Your task to perform on an android device: turn on improve location accuracy Image 0: 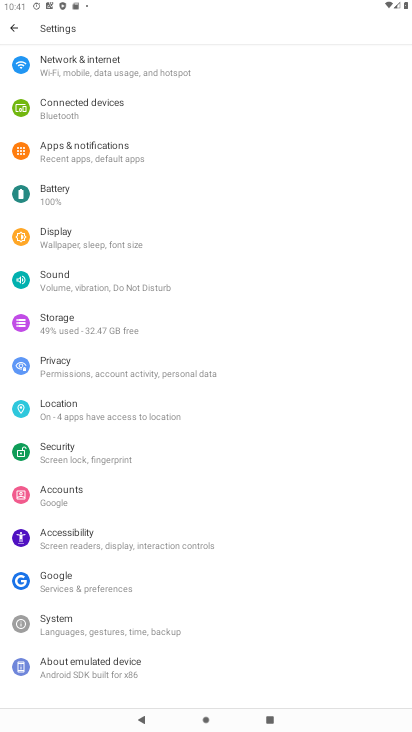
Step 0: click (88, 406)
Your task to perform on an android device: turn on improve location accuracy Image 1: 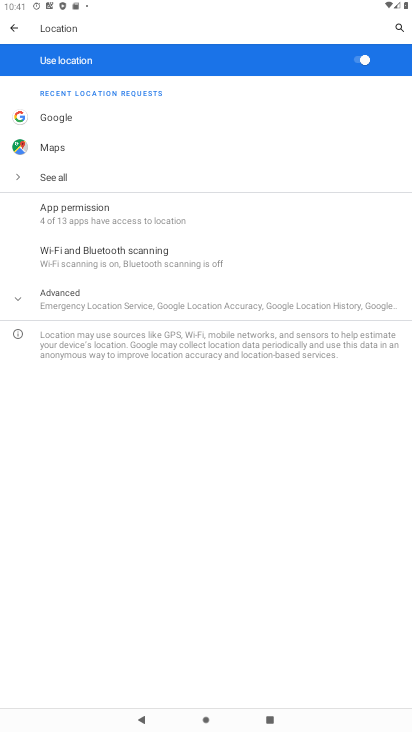
Step 1: click (133, 302)
Your task to perform on an android device: turn on improve location accuracy Image 2: 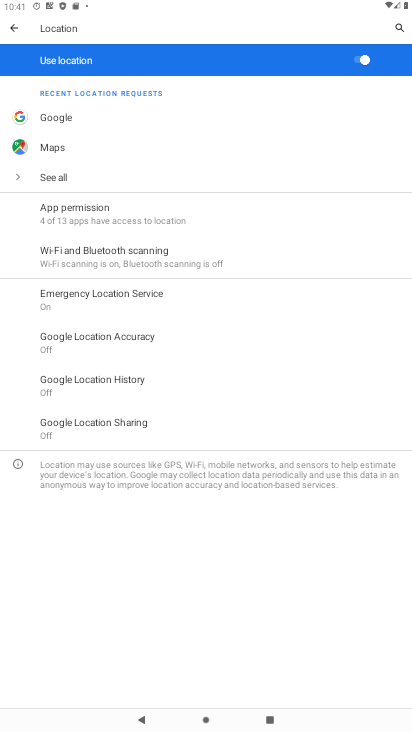
Step 2: click (150, 346)
Your task to perform on an android device: turn on improve location accuracy Image 3: 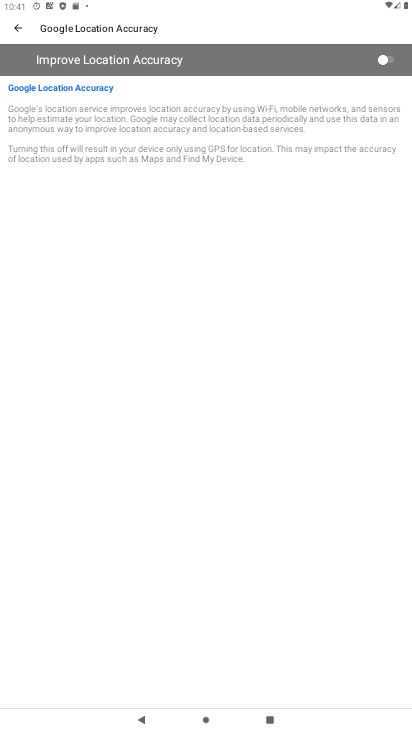
Step 3: drag from (256, 483) to (256, 201)
Your task to perform on an android device: turn on improve location accuracy Image 4: 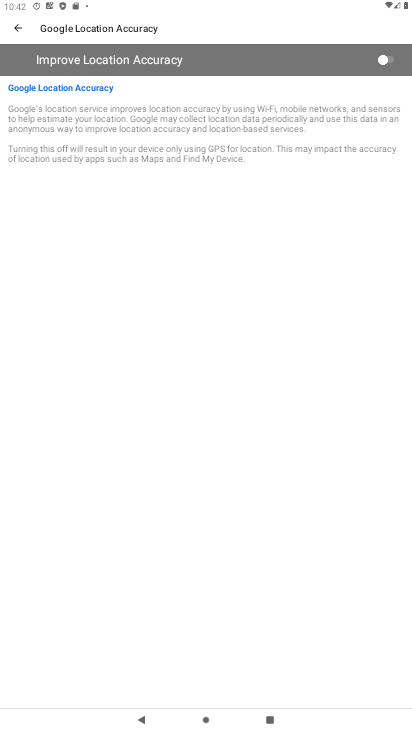
Step 4: drag from (271, 517) to (192, 545)
Your task to perform on an android device: turn on improve location accuracy Image 5: 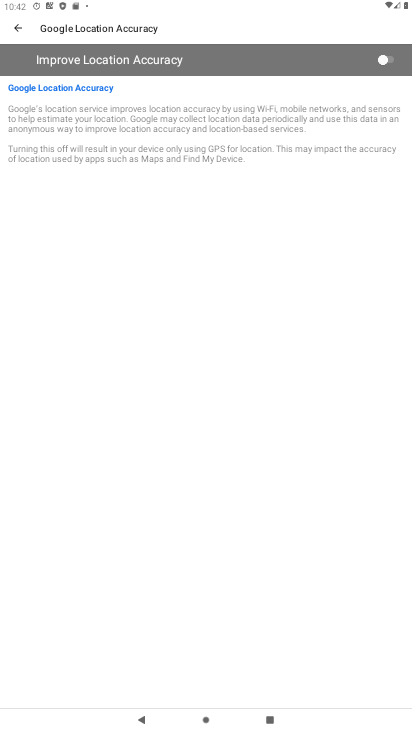
Step 5: drag from (198, 476) to (196, 359)
Your task to perform on an android device: turn on improve location accuracy Image 6: 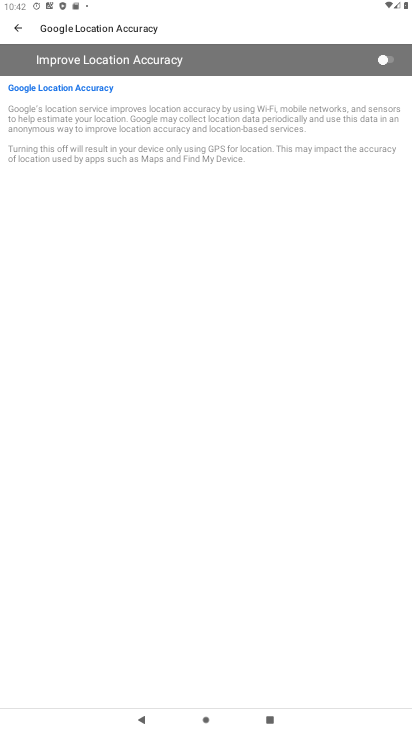
Step 6: click (354, 61)
Your task to perform on an android device: turn on improve location accuracy Image 7: 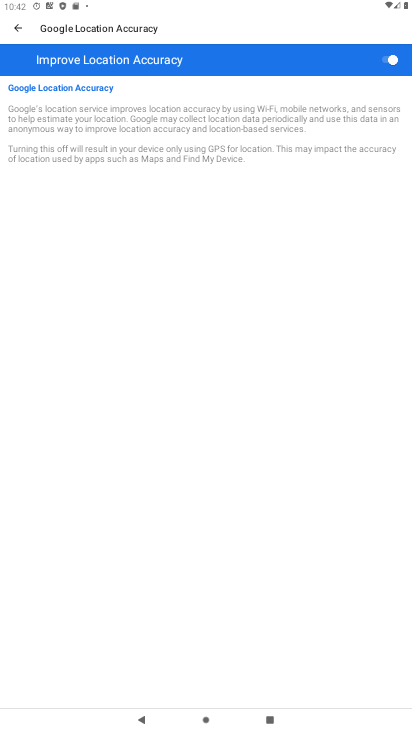
Step 7: task complete